Your task to perform on an android device: Open Android settings Image 0: 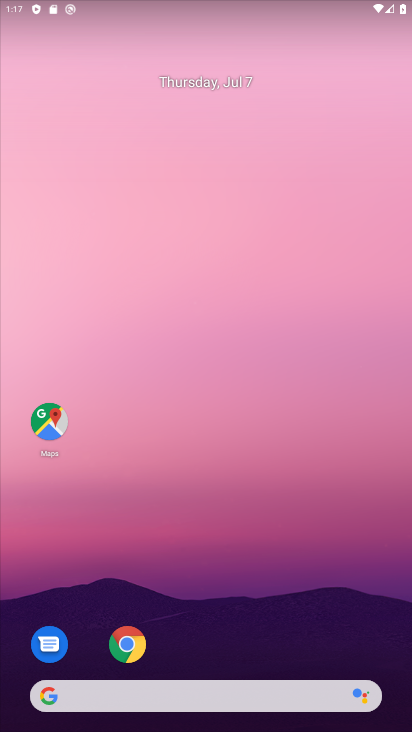
Step 0: drag from (193, 697) to (183, 232)
Your task to perform on an android device: Open Android settings Image 1: 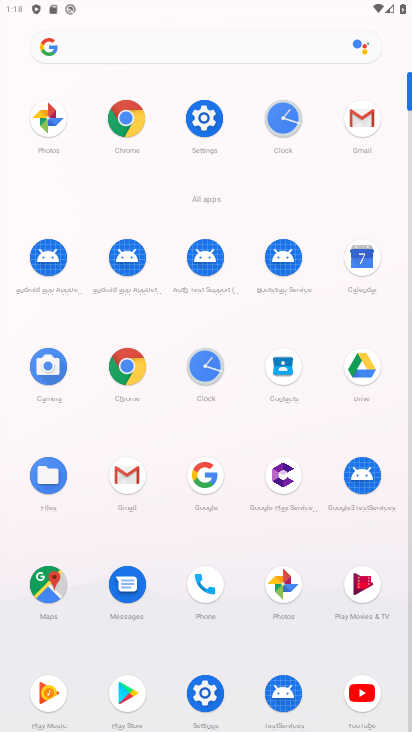
Step 1: click (200, 116)
Your task to perform on an android device: Open Android settings Image 2: 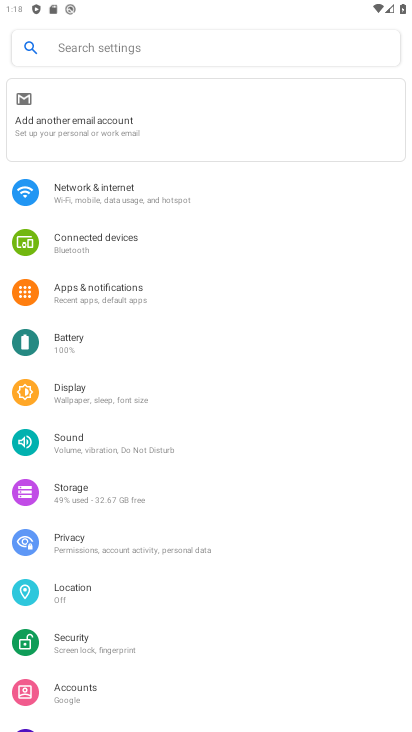
Step 2: task complete